Your task to perform on an android device: turn off wifi Image 0: 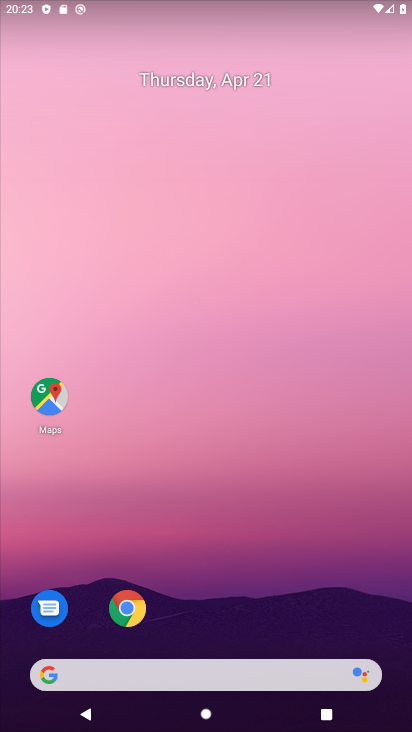
Step 0: drag from (217, 42) to (211, 298)
Your task to perform on an android device: turn off wifi Image 1: 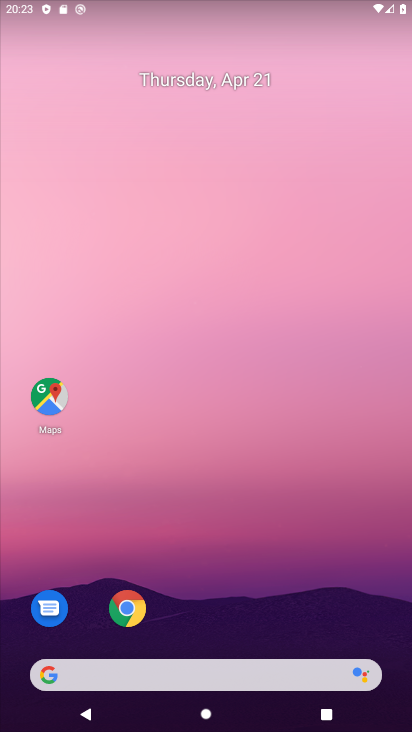
Step 1: drag from (167, 12) to (189, 646)
Your task to perform on an android device: turn off wifi Image 2: 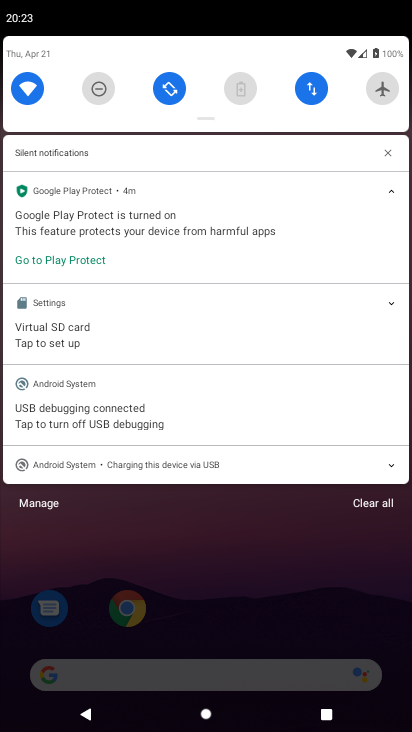
Step 2: click (36, 86)
Your task to perform on an android device: turn off wifi Image 3: 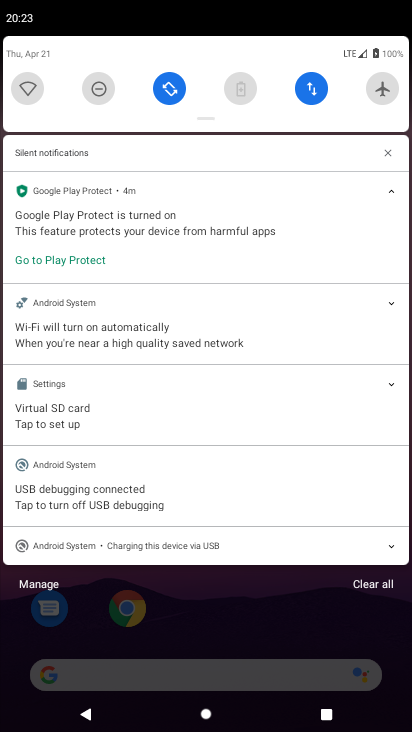
Step 3: task complete